Your task to perform on an android device: open app "Etsy: Buy & Sell Unique Items" (install if not already installed) and enter user name: "camp@inbox.com" and password: "unrelated" Image 0: 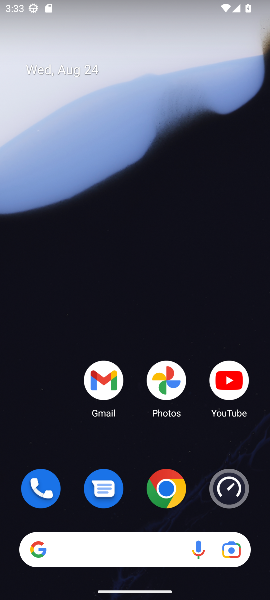
Step 0: drag from (137, 507) to (174, 206)
Your task to perform on an android device: open app "Etsy: Buy & Sell Unique Items" (install if not already installed) and enter user name: "camp@inbox.com" and password: "unrelated" Image 1: 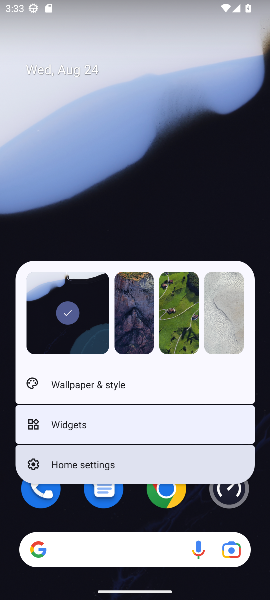
Step 1: click (109, 228)
Your task to perform on an android device: open app "Etsy: Buy & Sell Unique Items" (install if not already installed) and enter user name: "camp@inbox.com" and password: "unrelated" Image 2: 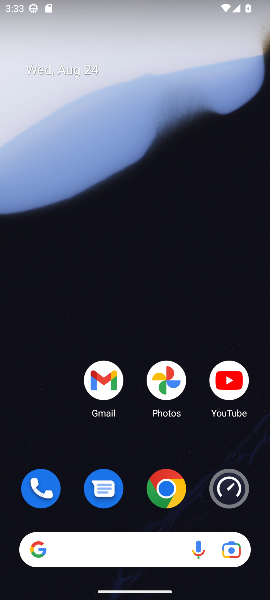
Step 2: drag from (130, 520) to (146, 11)
Your task to perform on an android device: open app "Etsy: Buy & Sell Unique Items" (install if not already installed) and enter user name: "camp@inbox.com" and password: "unrelated" Image 3: 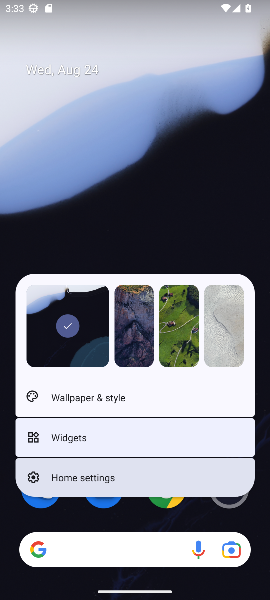
Step 3: click (100, 213)
Your task to perform on an android device: open app "Etsy: Buy & Sell Unique Items" (install if not already installed) and enter user name: "camp@inbox.com" and password: "unrelated" Image 4: 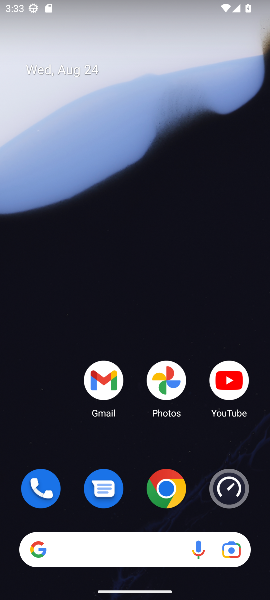
Step 4: drag from (127, 517) to (97, 93)
Your task to perform on an android device: open app "Etsy: Buy & Sell Unique Items" (install if not already installed) and enter user name: "camp@inbox.com" and password: "unrelated" Image 5: 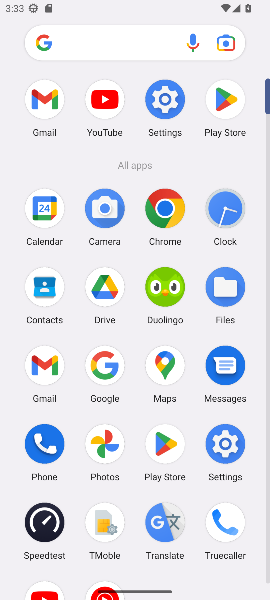
Step 5: click (229, 99)
Your task to perform on an android device: open app "Etsy: Buy & Sell Unique Items" (install if not already installed) and enter user name: "camp@inbox.com" and password: "unrelated" Image 6: 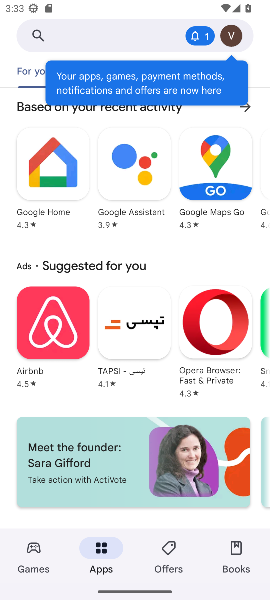
Step 6: click (100, 31)
Your task to perform on an android device: open app "Etsy: Buy & Sell Unique Items" (install if not already installed) and enter user name: "camp@inbox.com" and password: "unrelated" Image 7: 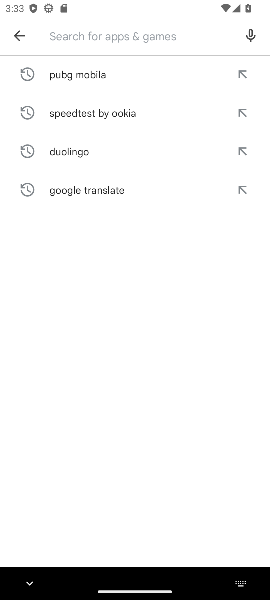
Step 7: type "etsy"
Your task to perform on an android device: open app "Etsy: Buy & Sell Unique Items" (install if not already installed) and enter user name: "camp@inbox.com" and password: "unrelated" Image 8: 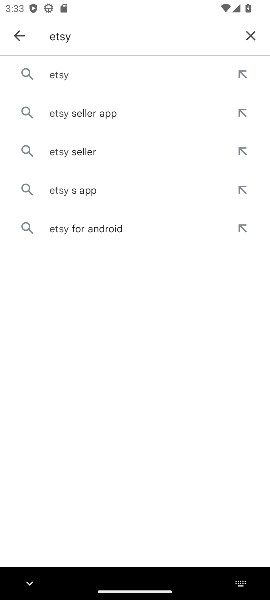
Step 8: click (80, 78)
Your task to perform on an android device: open app "Etsy: Buy & Sell Unique Items" (install if not already installed) and enter user name: "camp@inbox.com" and password: "unrelated" Image 9: 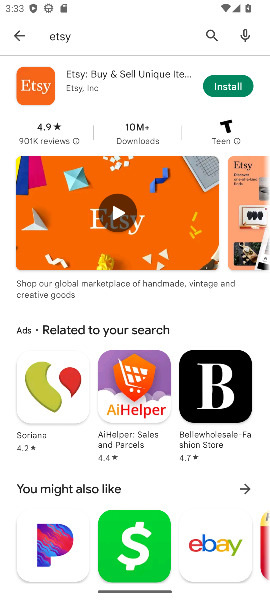
Step 9: click (223, 90)
Your task to perform on an android device: open app "Etsy: Buy & Sell Unique Items" (install if not already installed) and enter user name: "camp@inbox.com" and password: "unrelated" Image 10: 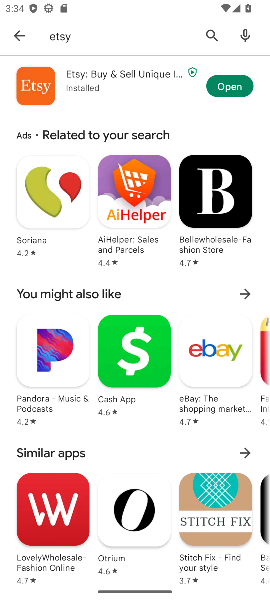
Step 10: click (212, 89)
Your task to perform on an android device: open app "Etsy: Buy & Sell Unique Items" (install if not already installed) and enter user name: "camp@inbox.com" and password: "unrelated" Image 11: 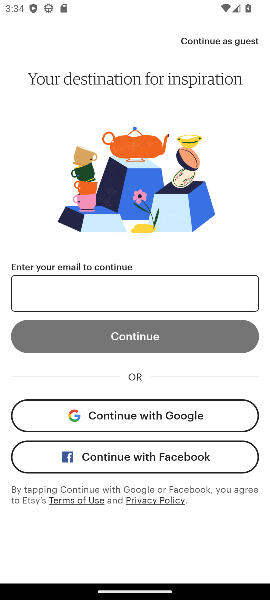
Step 11: type "camp@inbox.com"
Your task to perform on an android device: open app "Etsy: Buy & Sell Unique Items" (install if not already installed) and enter user name: "camp@inbox.com" and password: "unrelated" Image 12: 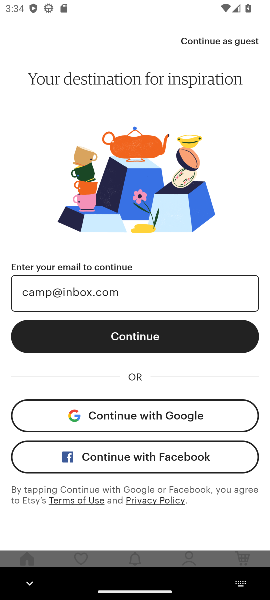
Step 12: click (89, 327)
Your task to perform on an android device: open app "Etsy: Buy & Sell Unique Items" (install if not already installed) and enter user name: "camp@inbox.com" and password: "unrelated" Image 13: 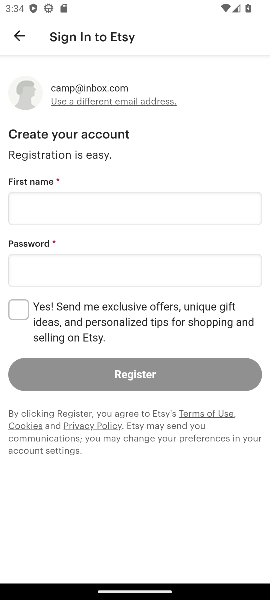
Step 13: click (24, 38)
Your task to perform on an android device: open app "Etsy: Buy & Sell Unique Items" (install if not already installed) and enter user name: "camp@inbox.com" and password: "unrelated" Image 14: 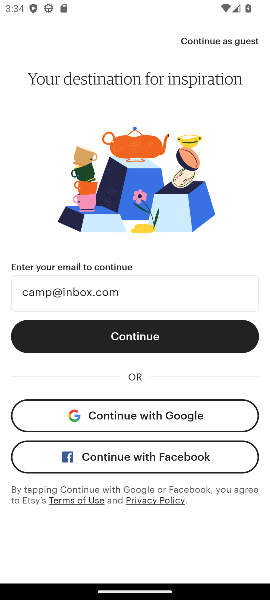
Step 14: click (139, 342)
Your task to perform on an android device: open app "Etsy: Buy & Sell Unique Items" (install if not already installed) and enter user name: "camp@inbox.com" and password: "unrelated" Image 15: 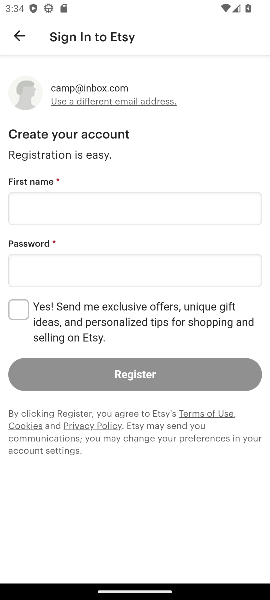
Step 15: click (125, 234)
Your task to perform on an android device: open app "Etsy: Buy & Sell Unique Items" (install if not already installed) and enter user name: "camp@inbox.com" and password: "unrelated" Image 16: 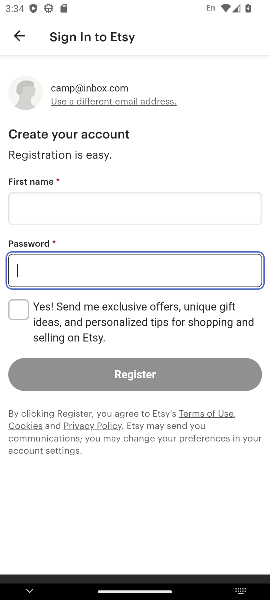
Step 16: click (135, 223)
Your task to perform on an android device: open app "Etsy: Buy & Sell Unique Items" (install if not already installed) and enter user name: "camp@inbox.com" and password: "unrelated" Image 17: 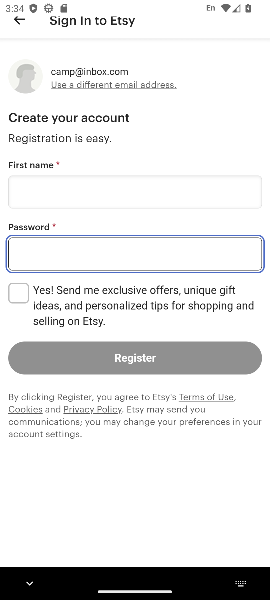
Step 17: click (145, 213)
Your task to perform on an android device: open app "Etsy: Buy & Sell Unique Items" (install if not already installed) and enter user name: "camp@inbox.com" and password: "unrelated" Image 18: 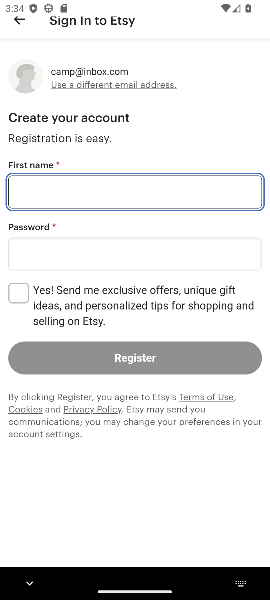
Step 18: click (152, 200)
Your task to perform on an android device: open app "Etsy: Buy & Sell Unique Items" (install if not already installed) and enter user name: "camp@inbox.com" and password: "unrelated" Image 19: 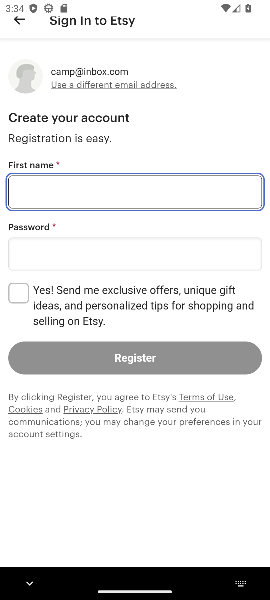
Step 19: type "ssdsff"
Your task to perform on an android device: open app "Etsy: Buy & Sell Unique Items" (install if not already installed) and enter user name: "camp@inbox.com" and password: "unrelated" Image 20: 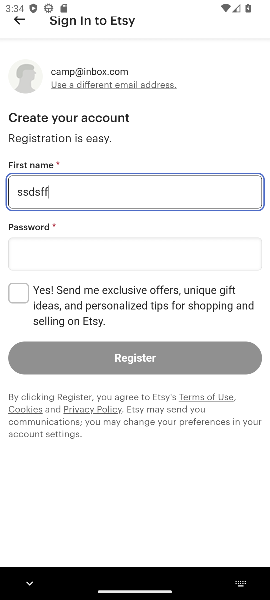
Step 20: click (94, 257)
Your task to perform on an android device: open app "Etsy: Buy & Sell Unique Items" (install if not already installed) and enter user name: "camp@inbox.com" and password: "unrelated" Image 21: 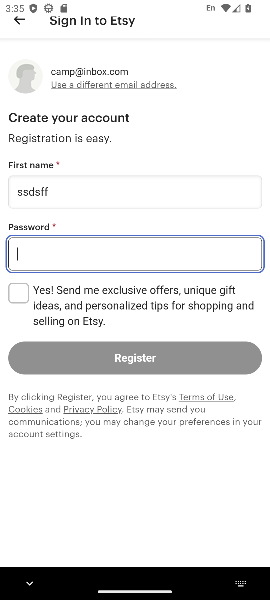
Step 21: type "unrelated"
Your task to perform on an android device: open app "Etsy: Buy & Sell Unique Items" (install if not already installed) and enter user name: "camp@inbox.com" and password: "unrelated" Image 22: 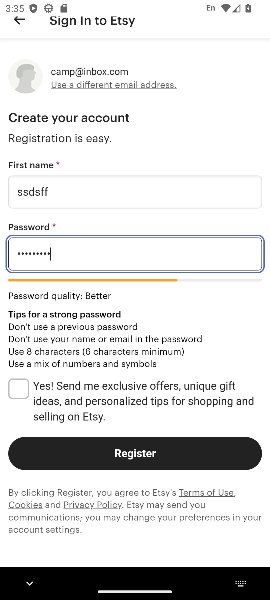
Step 22: click (7, 291)
Your task to perform on an android device: open app "Etsy: Buy & Sell Unique Items" (install if not already installed) and enter user name: "camp@inbox.com" and password: "unrelated" Image 23: 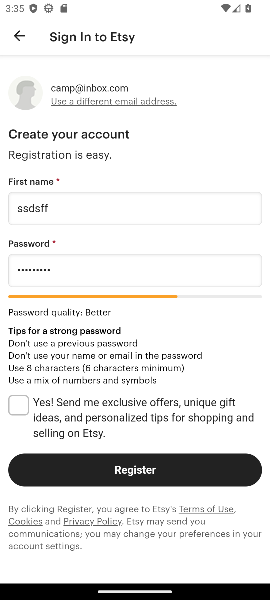
Step 23: click (20, 385)
Your task to perform on an android device: open app "Etsy: Buy & Sell Unique Items" (install if not already installed) and enter user name: "camp@inbox.com" and password: "unrelated" Image 24: 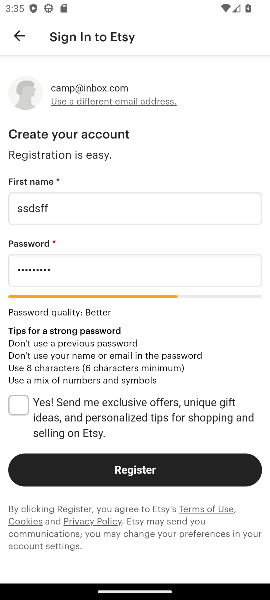
Step 24: click (24, 409)
Your task to perform on an android device: open app "Etsy: Buy & Sell Unique Items" (install if not already installed) and enter user name: "camp@inbox.com" and password: "unrelated" Image 25: 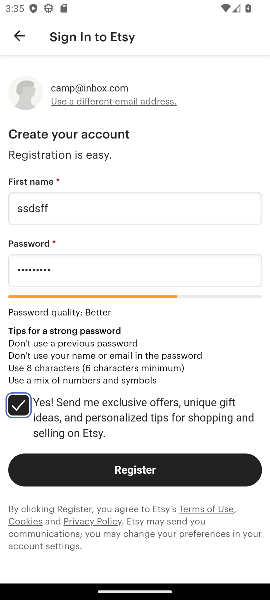
Step 25: click (76, 465)
Your task to perform on an android device: open app "Etsy: Buy & Sell Unique Items" (install if not already installed) and enter user name: "camp@inbox.com" and password: "unrelated" Image 26: 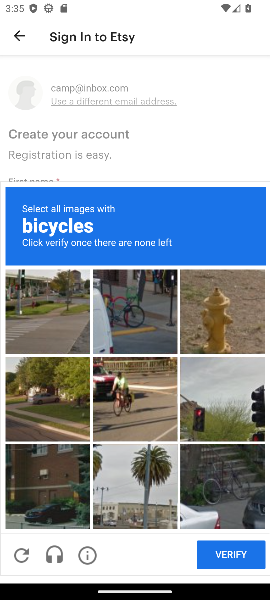
Step 26: click (130, 312)
Your task to perform on an android device: open app "Etsy: Buy & Sell Unique Items" (install if not already installed) and enter user name: "camp@inbox.com" and password: "unrelated" Image 27: 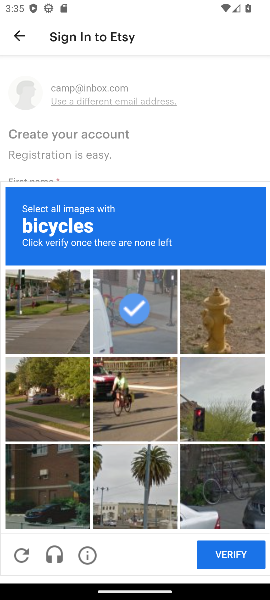
Step 27: click (145, 418)
Your task to perform on an android device: open app "Etsy: Buy & Sell Unique Items" (install if not already installed) and enter user name: "camp@inbox.com" and password: "unrelated" Image 28: 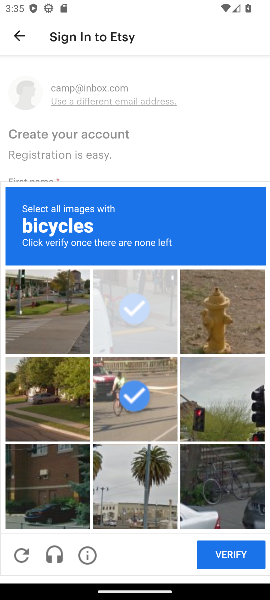
Step 28: click (235, 494)
Your task to perform on an android device: open app "Etsy: Buy & Sell Unique Items" (install if not already installed) and enter user name: "camp@inbox.com" and password: "unrelated" Image 29: 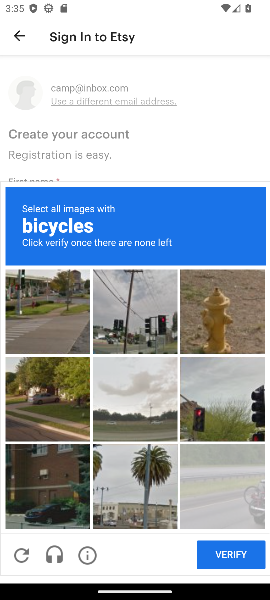
Step 29: click (219, 554)
Your task to perform on an android device: open app "Etsy: Buy & Sell Unique Items" (install if not already installed) and enter user name: "camp@inbox.com" and password: "unrelated" Image 30: 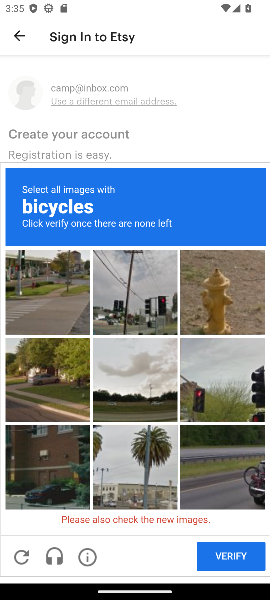
Step 30: task complete